Your task to perform on an android device: Open internet settings Image 0: 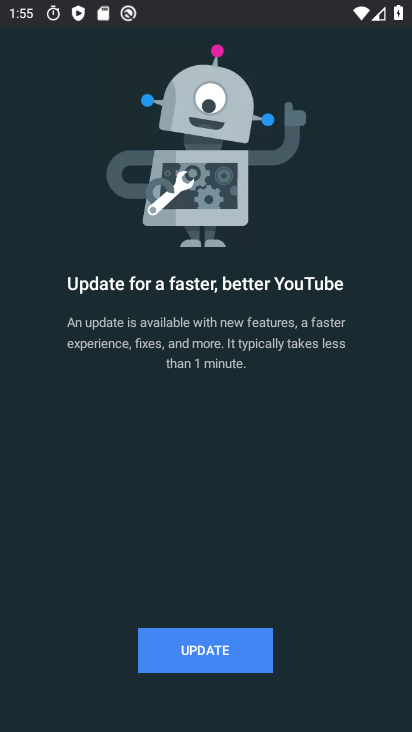
Step 0: press home button
Your task to perform on an android device: Open internet settings Image 1: 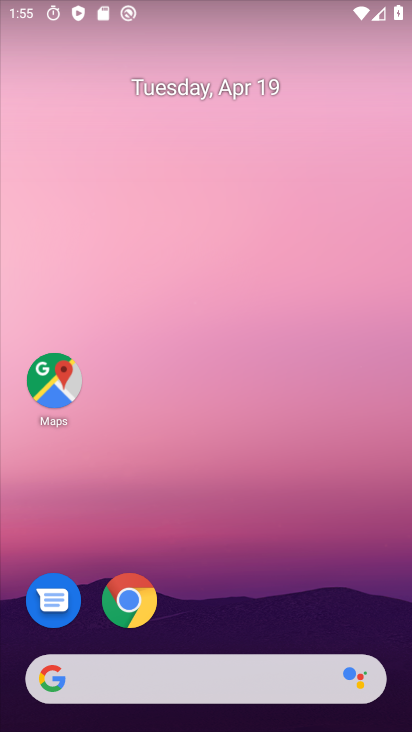
Step 1: drag from (267, 727) to (249, 325)
Your task to perform on an android device: Open internet settings Image 2: 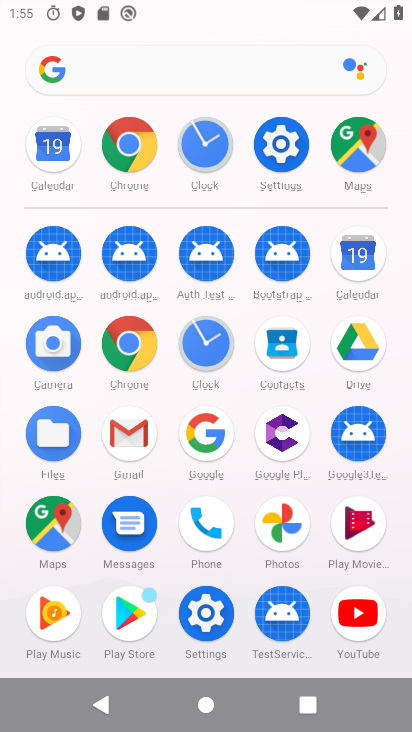
Step 2: click (271, 141)
Your task to perform on an android device: Open internet settings Image 3: 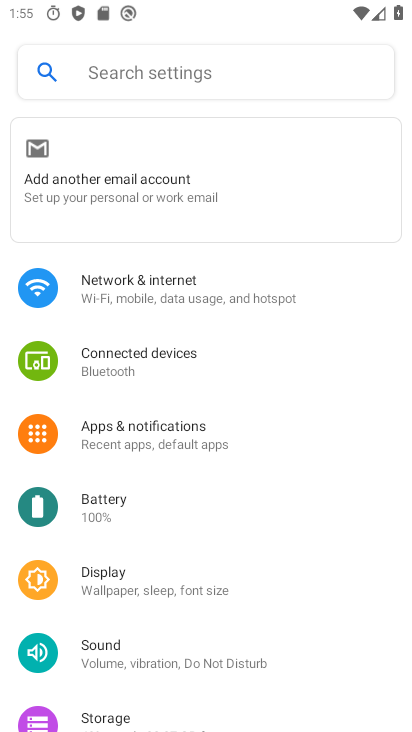
Step 3: click (150, 292)
Your task to perform on an android device: Open internet settings Image 4: 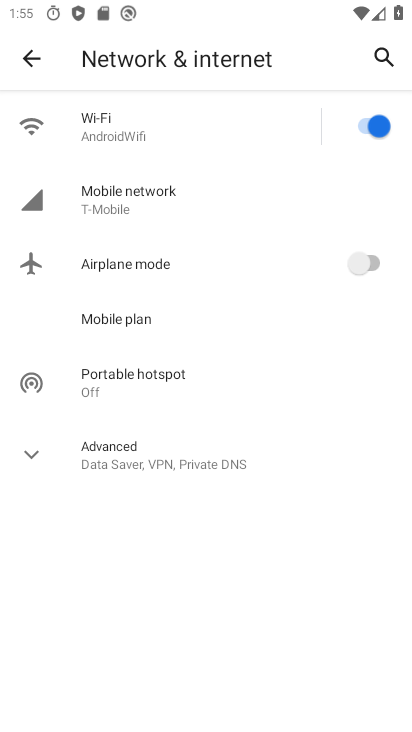
Step 4: click (125, 438)
Your task to perform on an android device: Open internet settings Image 5: 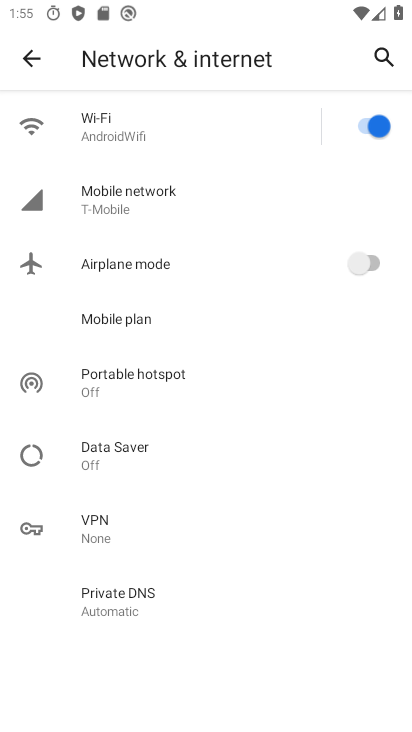
Step 5: task complete